Your task to perform on an android device: set the stopwatch Image 0: 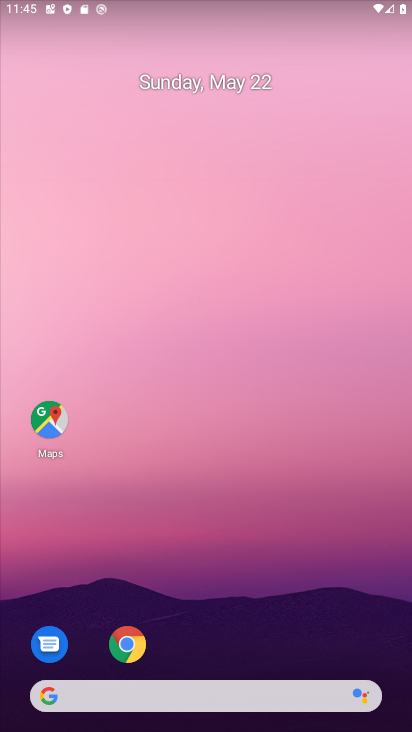
Step 0: drag from (364, 618) to (234, 31)
Your task to perform on an android device: set the stopwatch Image 1: 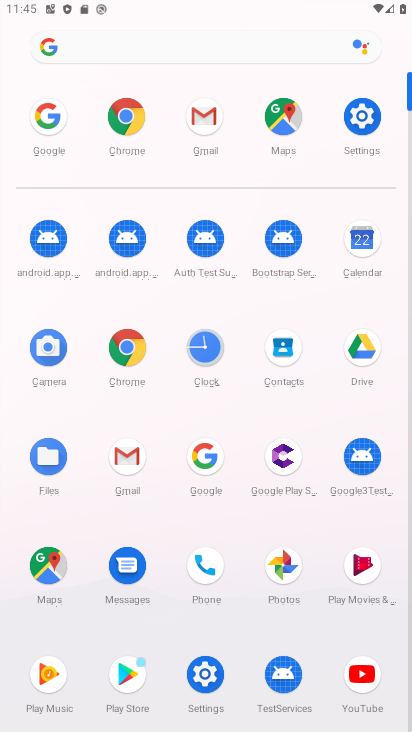
Step 1: click (216, 352)
Your task to perform on an android device: set the stopwatch Image 2: 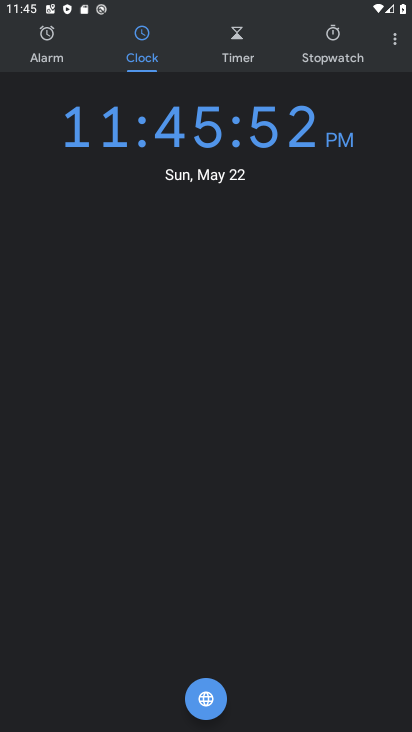
Step 2: click (335, 40)
Your task to perform on an android device: set the stopwatch Image 3: 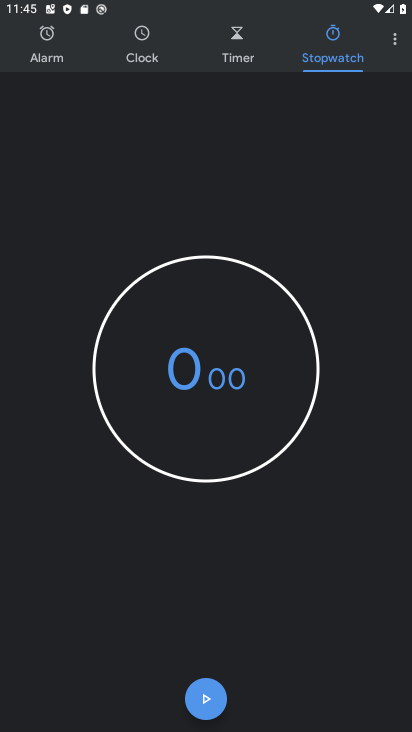
Step 3: task complete